Your task to perform on an android device: Search for Mexican restaurants on Maps Image 0: 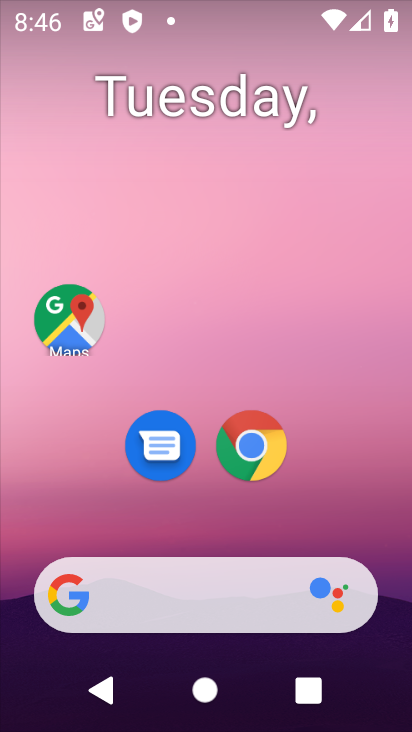
Step 0: click (86, 342)
Your task to perform on an android device: Search for Mexican restaurants on Maps Image 1: 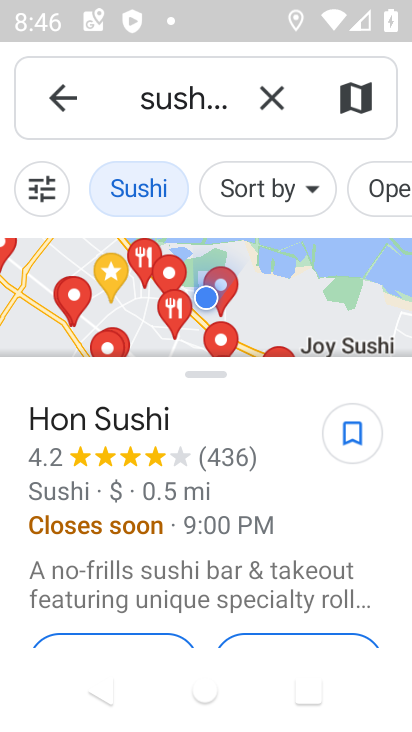
Step 1: click (277, 103)
Your task to perform on an android device: Search for Mexican restaurants on Maps Image 2: 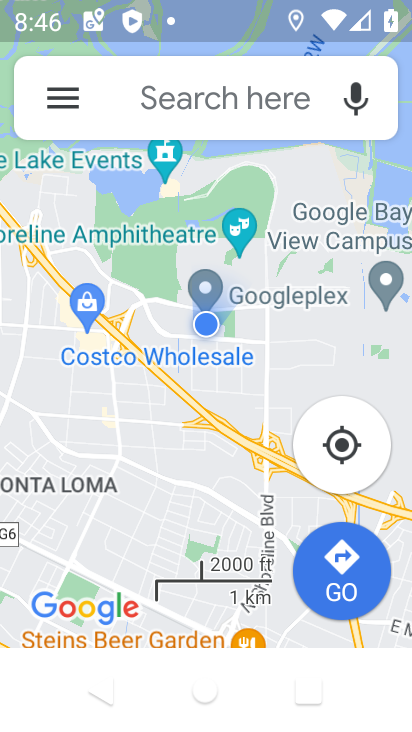
Step 2: click (163, 116)
Your task to perform on an android device: Search for Mexican restaurants on Maps Image 3: 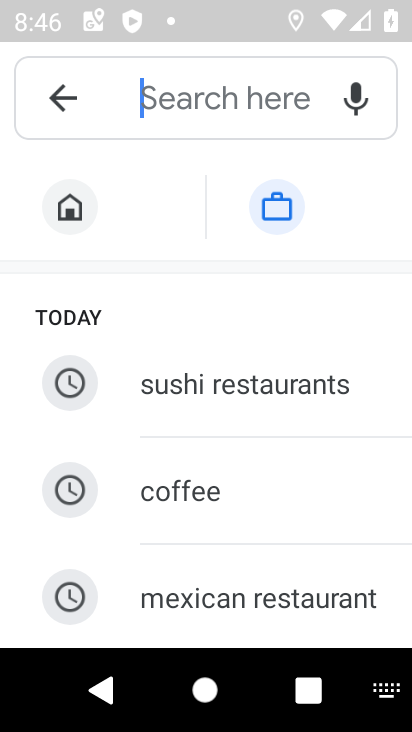
Step 3: click (231, 575)
Your task to perform on an android device: Search for Mexican restaurants on Maps Image 4: 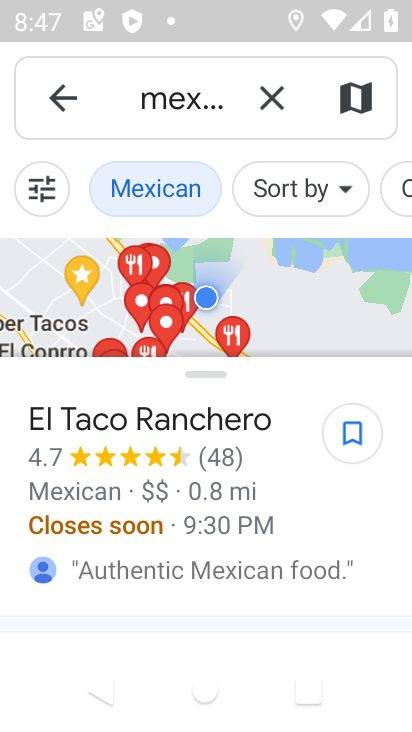
Step 4: task complete